Your task to perform on an android device: Go to notification settings Image 0: 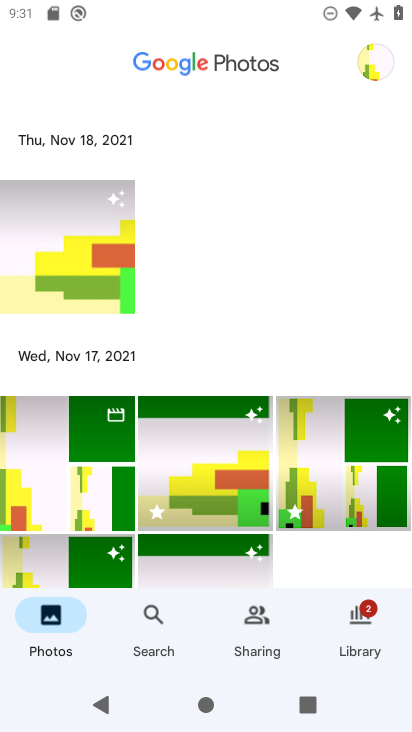
Step 0: press home button
Your task to perform on an android device: Go to notification settings Image 1: 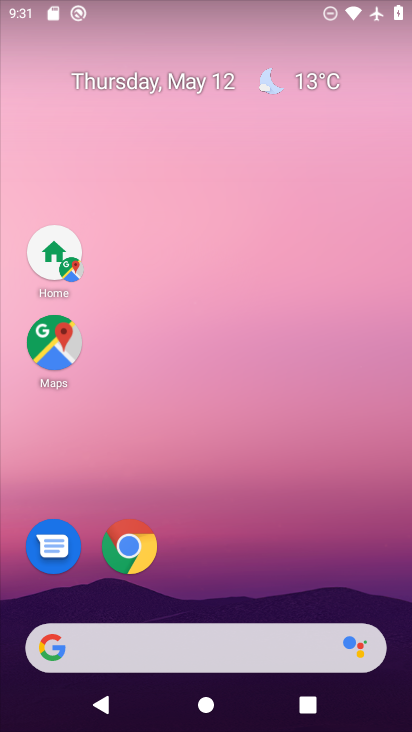
Step 1: drag from (178, 665) to (340, 112)
Your task to perform on an android device: Go to notification settings Image 2: 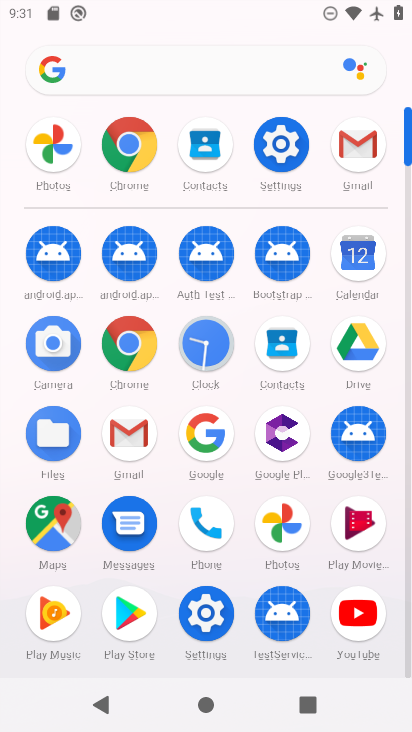
Step 2: click (282, 156)
Your task to perform on an android device: Go to notification settings Image 3: 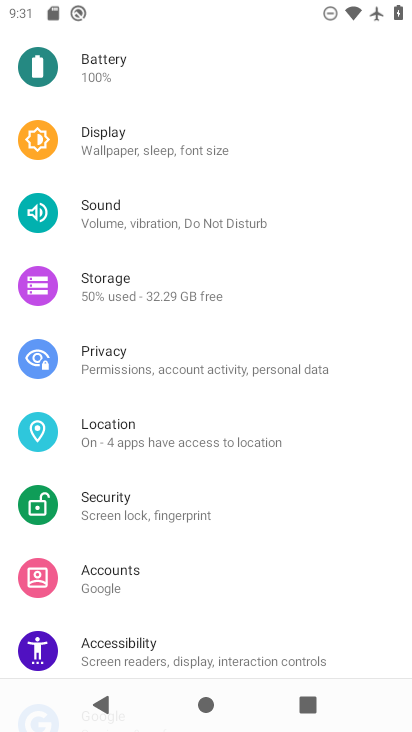
Step 3: drag from (314, 121) to (303, 593)
Your task to perform on an android device: Go to notification settings Image 4: 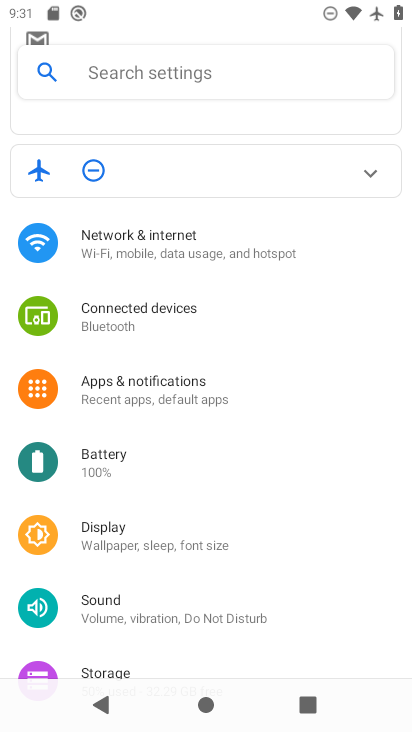
Step 4: click (185, 385)
Your task to perform on an android device: Go to notification settings Image 5: 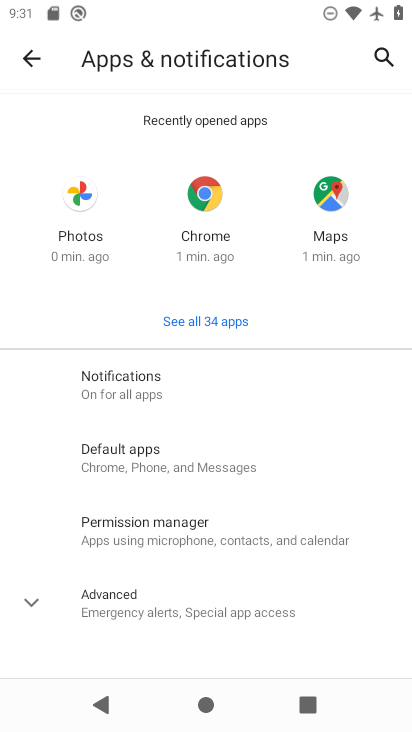
Step 5: click (144, 383)
Your task to perform on an android device: Go to notification settings Image 6: 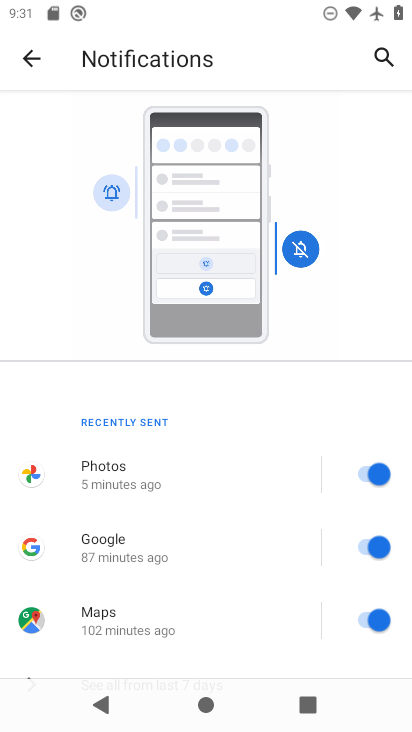
Step 6: task complete